Your task to perform on an android device: add a contact in the contacts app Image 0: 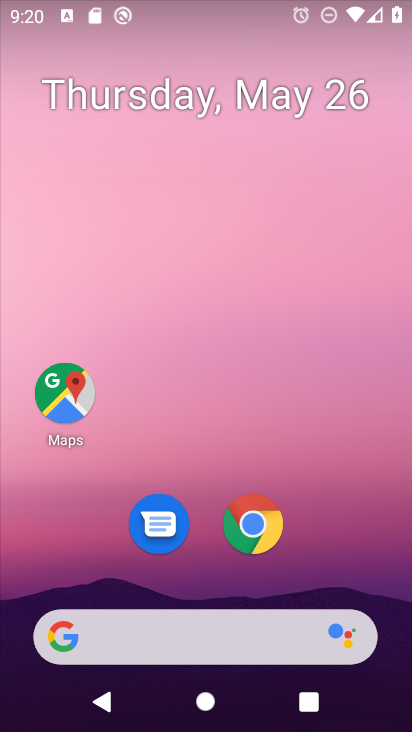
Step 0: drag from (320, 561) to (317, 49)
Your task to perform on an android device: add a contact in the contacts app Image 1: 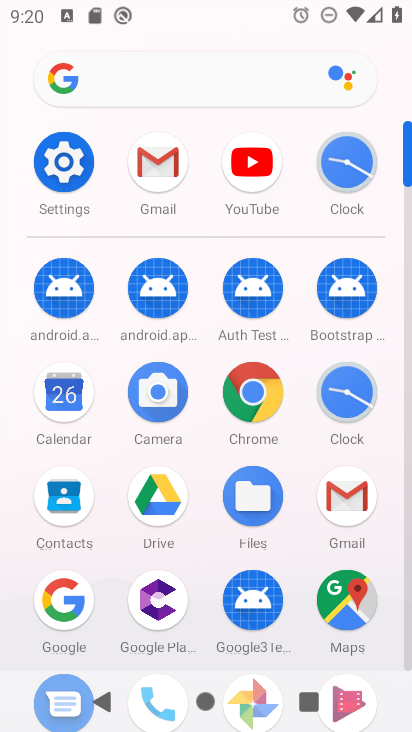
Step 1: click (62, 500)
Your task to perform on an android device: add a contact in the contacts app Image 2: 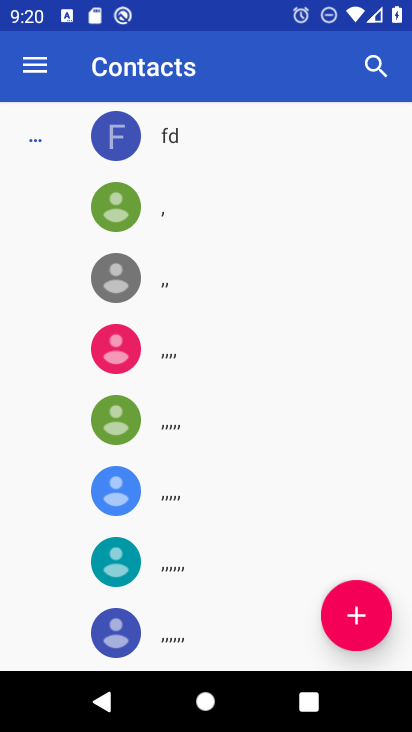
Step 2: click (335, 614)
Your task to perform on an android device: add a contact in the contacts app Image 3: 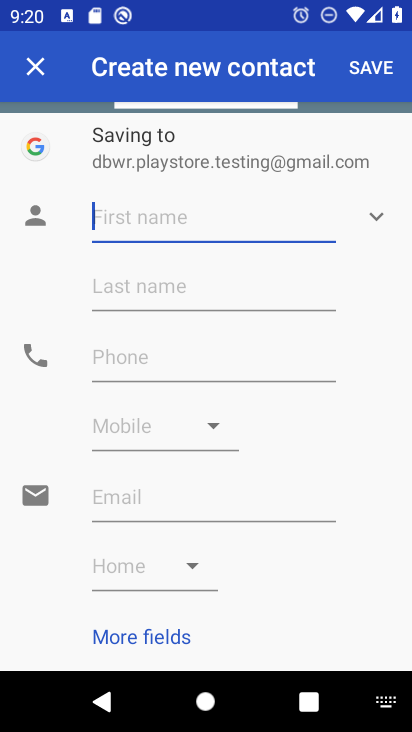
Step 3: type "Rawan Vibhishan"
Your task to perform on an android device: add a contact in the contacts app Image 4: 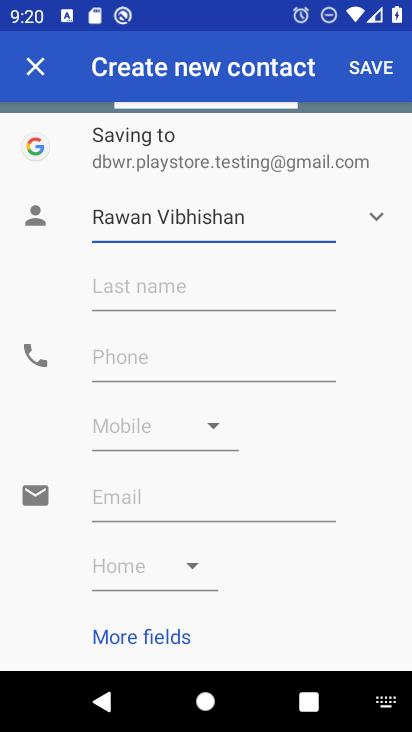
Step 4: click (237, 359)
Your task to perform on an android device: add a contact in the contacts app Image 5: 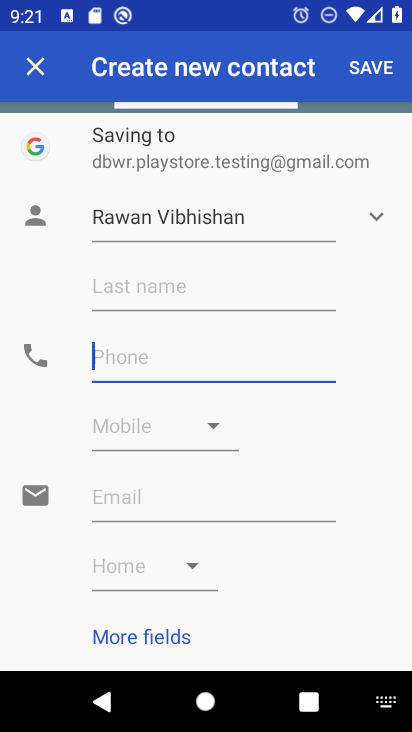
Step 5: type "044222335577"
Your task to perform on an android device: add a contact in the contacts app Image 6: 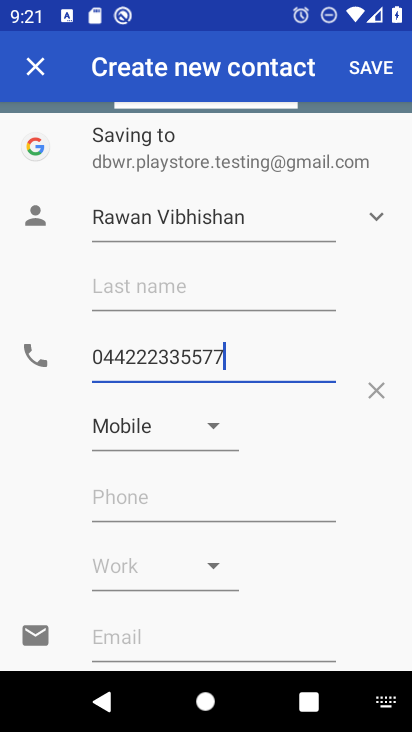
Step 6: click (374, 70)
Your task to perform on an android device: add a contact in the contacts app Image 7: 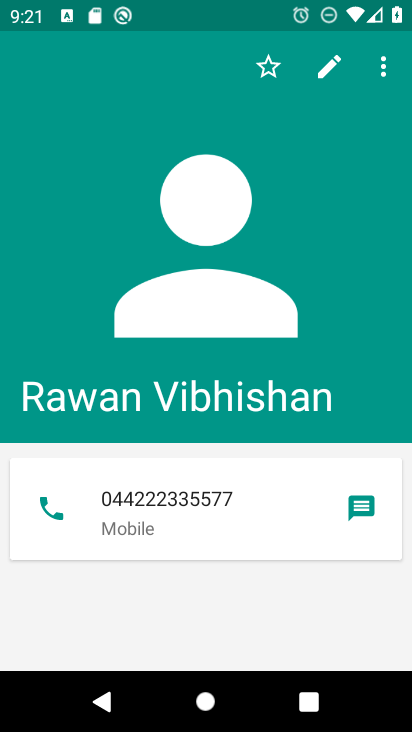
Step 7: task complete